Your task to perform on an android device: toggle notifications settings in the gmail app Image 0: 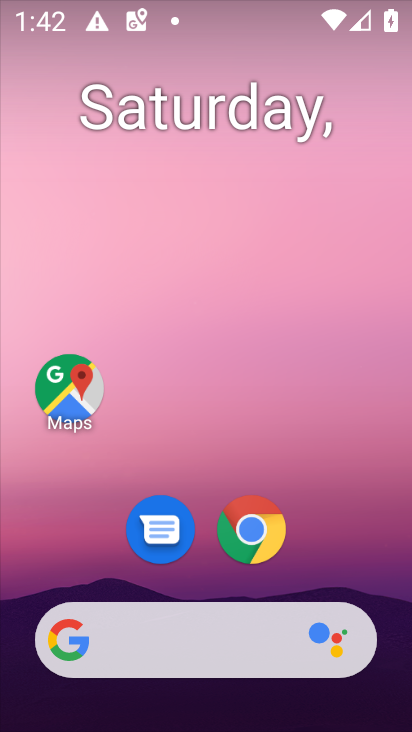
Step 0: drag from (371, 560) to (346, 117)
Your task to perform on an android device: toggle notifications settings in the gmail app Image 1: 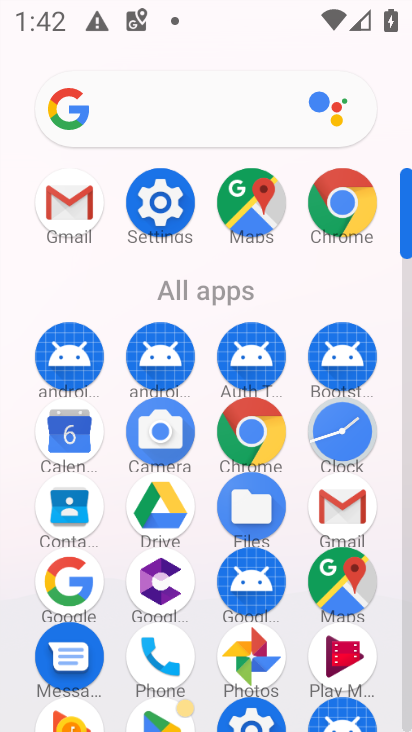
Step 1: click (66, 199)
Your task to perform on an android device: toggle notifications settings in the gmail app Image 2: 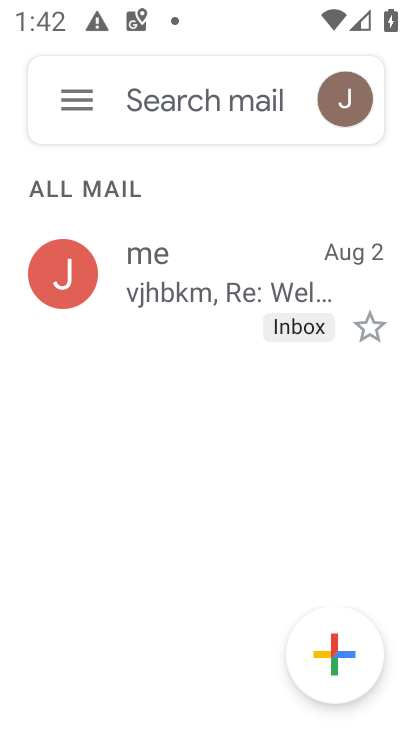
Step 2: click (78, 115)
Your task to perform on an android device: toggle notifications settings in the gmail app Image 3: 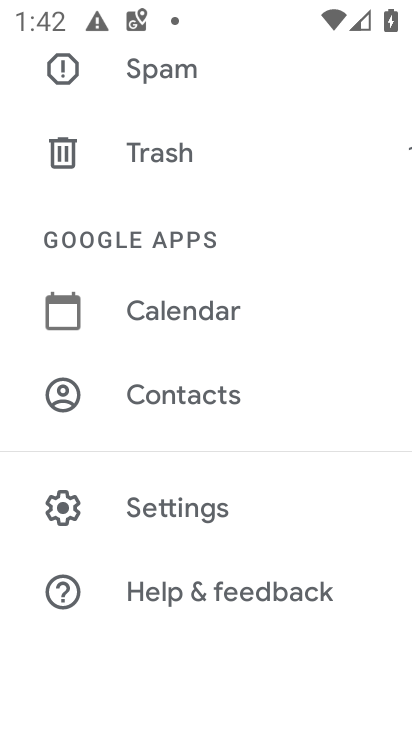
Step 3: click (197, 516)
Your task to perform on an android device: toggle notifications settings in the gmail app Image 4: 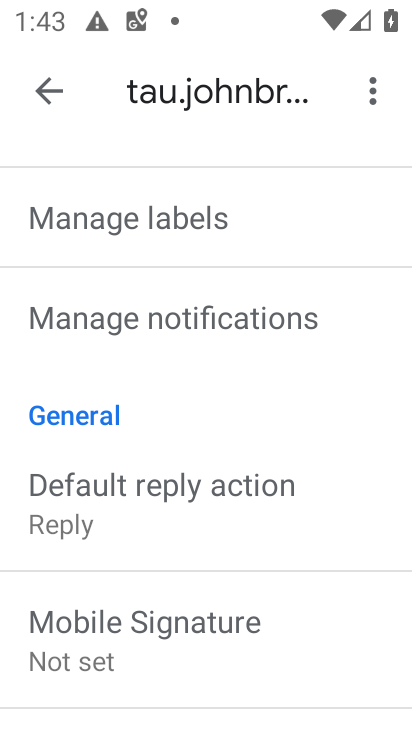
Step 4: click (222, 330)
Your task to perform on an android device: toggle notifications settings in the gmail app Image 5: 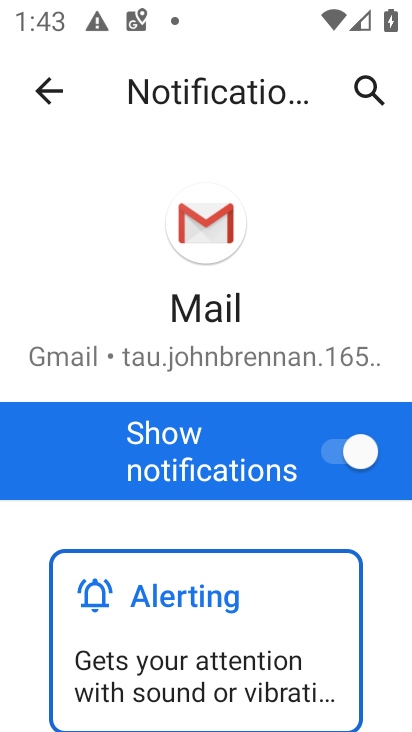
Step 5: drag from (322, 582) to (268, 235)
Your task to perform on an android device: toggle notifications settings in the gmail app Image 6: 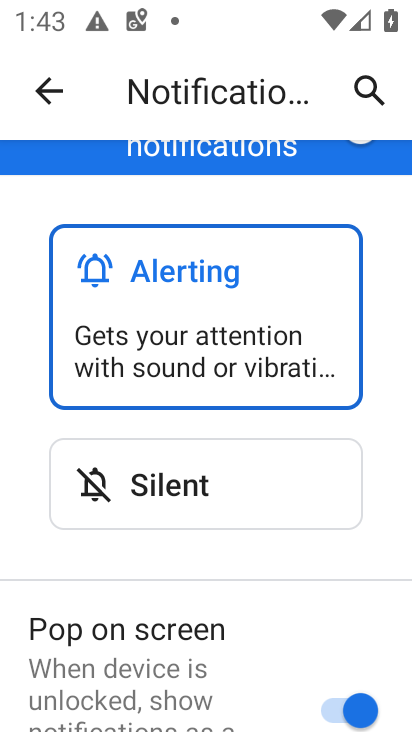
Step 6: drag from (288, 611) to (273, 317)
Your task to perform on an android device: toggle notifications settings in the gmail app Image 7: 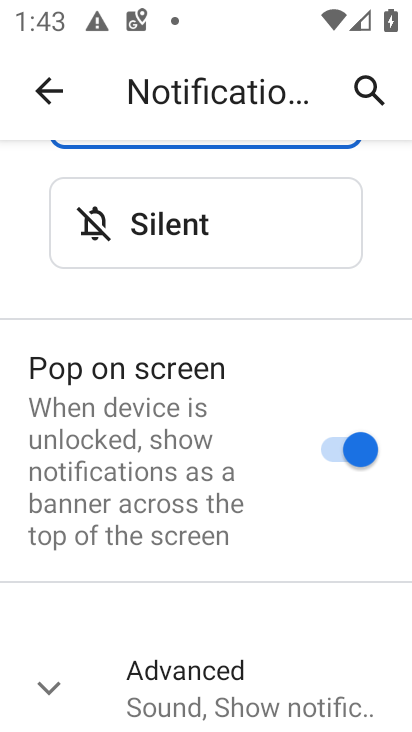
Step 7: click (334, 446)
Your task to perform on an android device: toggle notifications settings in the gmail app Image 8: 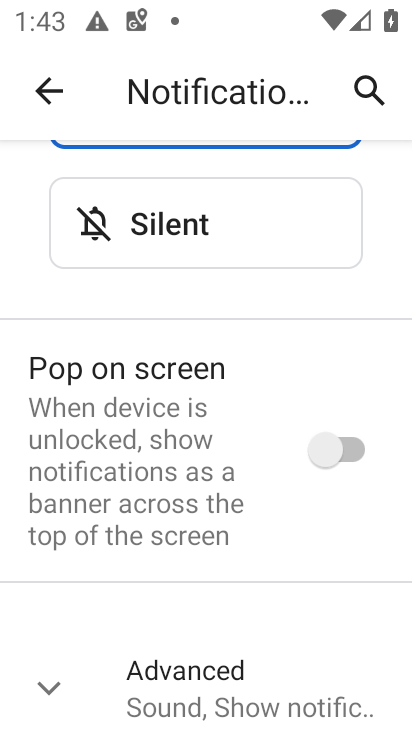
Step 8: task complete